Your task to perform on an android device: choose inbox layout in the gmail app Image 0: 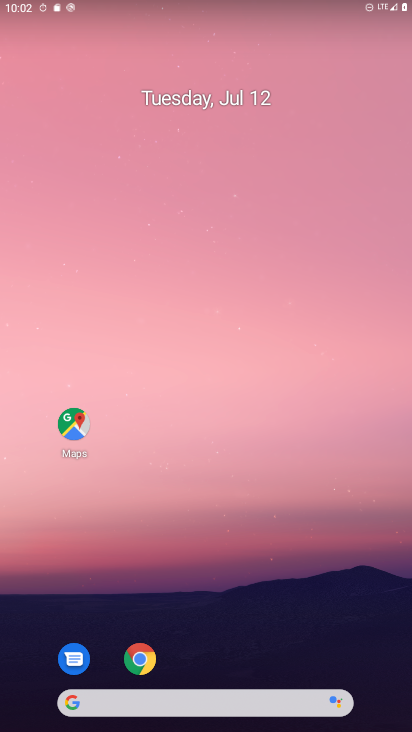
Step 0: drag from (383, 704) to (135, 61)
Your task to perform on an android device: choose inbox layout in the gmail app Image 1: 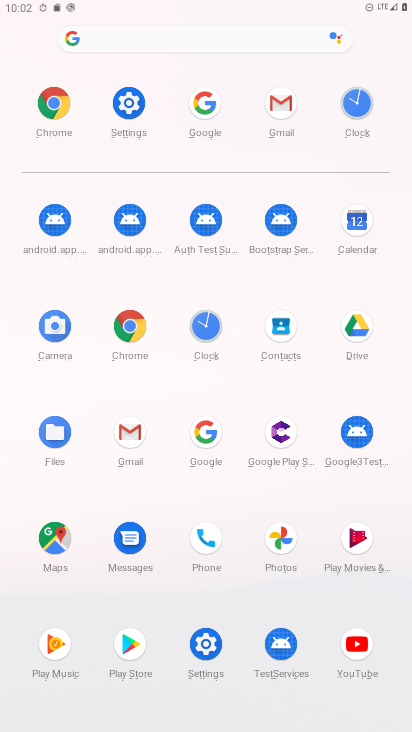
Step 1: click (136, 438)
Your task to perform on an android device: choose inbox layout in the gmail app Image 2: 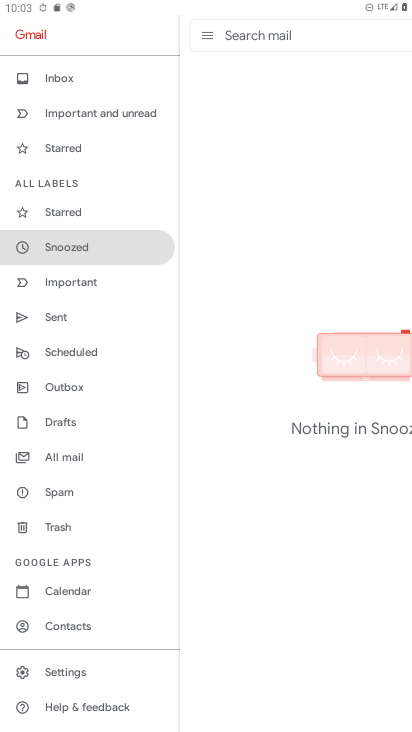
Step 2: click (98, 79)
Your task to perform on an android device: choose inbox layout in the gmail app Image 3: 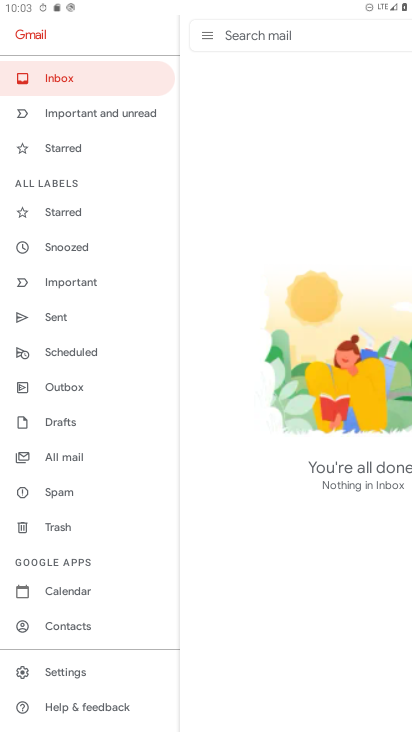
Step 3: task complete